Your task to perform on an android device: toggle javascript in the chrome app Image 0: 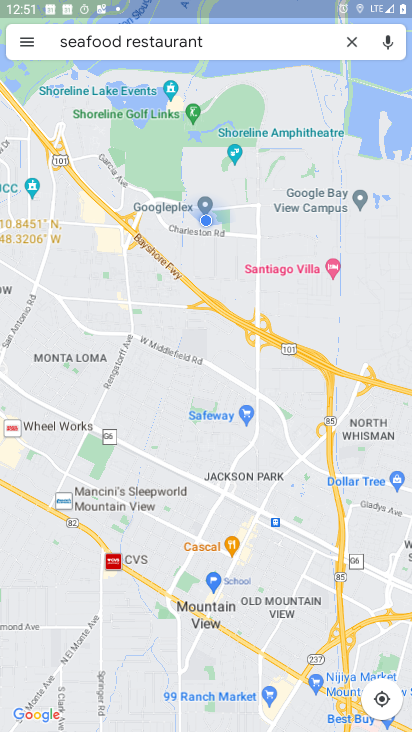
Step 0: task complete